Your task to perform on an android device: uninstall "Reddit" Image 0: 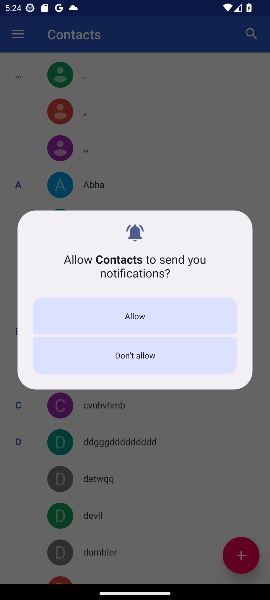
Step 0: press home button
Your task to perform on an android device: uninstall "Reddit" Image 1: 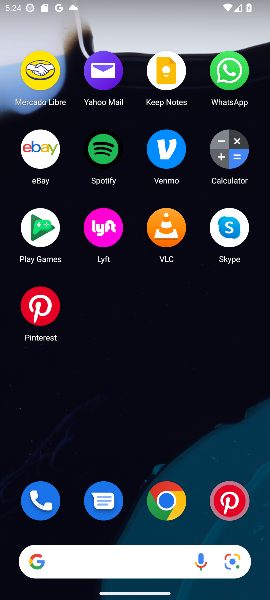
Step 1: drag from (138, 412) to (116, 46)
Your task to perform on an android device: uninstall "Reddit" Image 2: 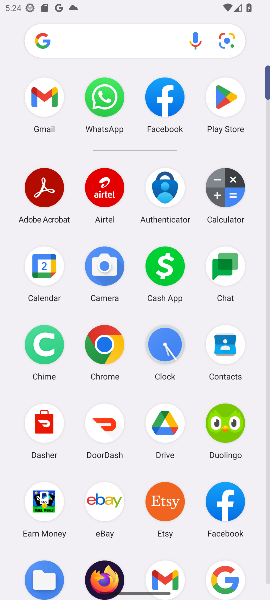
Step 2: click (216, 100)
Your task to perform on an android device: uninstall "Reddit" Image 3: 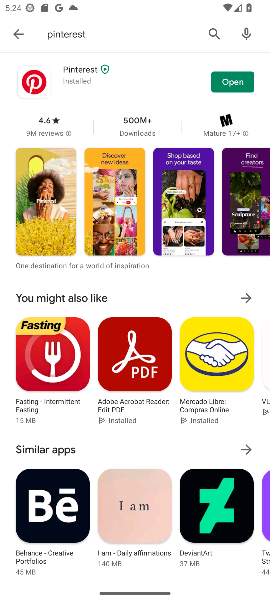
Step 3: click (211, 36)
Your task to perform on an android device: uninstall "Reddit" Image 4: 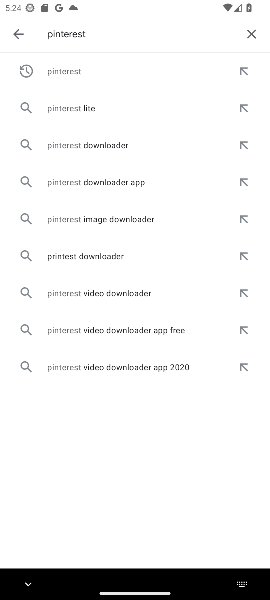
Step 4: click (246, 36)
Your task to perform on an android device: uninstall "Reddit" Image 5: 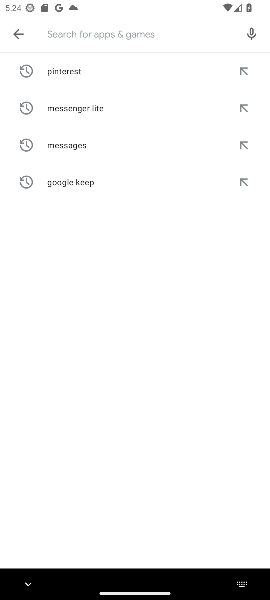
Step 5: type "Reddit"
Your task to perform on an android device: uninstall "Reddit" Image 6: 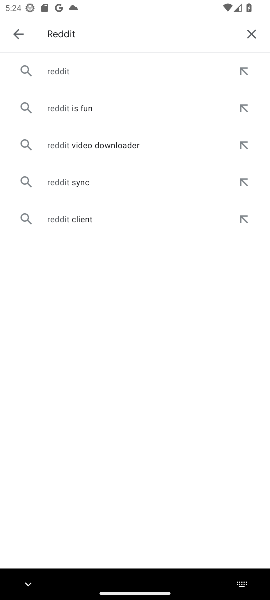
Step 6: click (52, 74)
Your task to perform on an android device: uninstall "Reddit" Image 7: 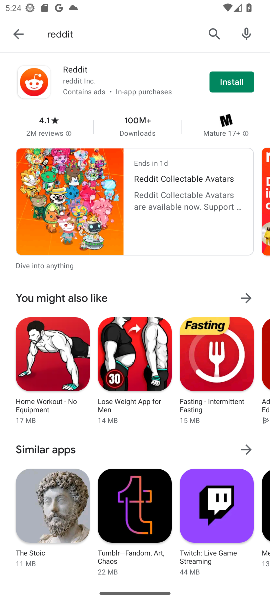
Step 7: task complete